Your task to perform on an android device: What is the recent news? Image 0: 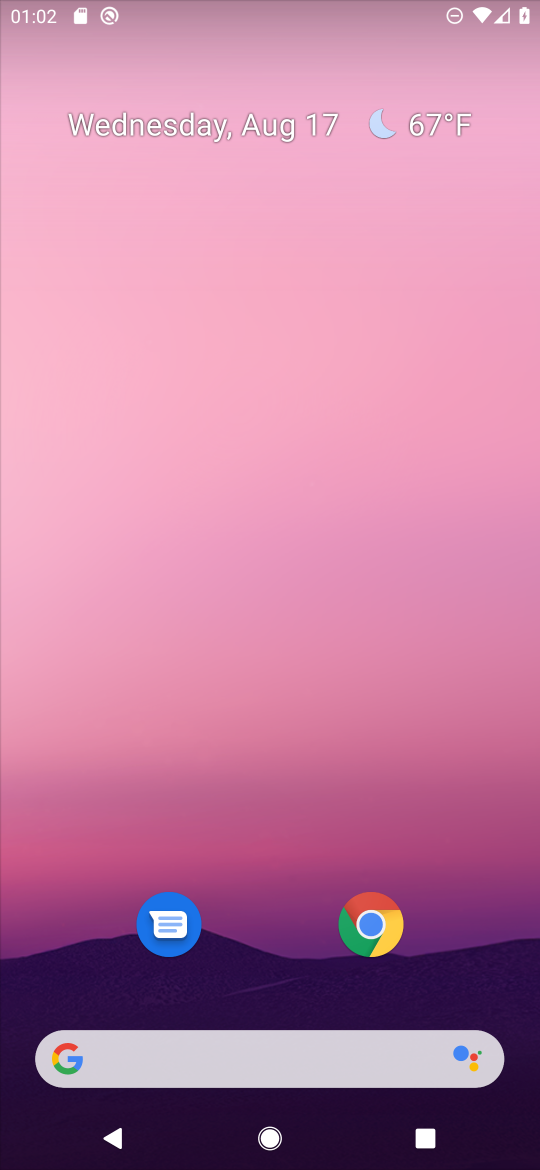
Step 0: press home button
Your task to perform on an android device: What is the recent news? Image 1: 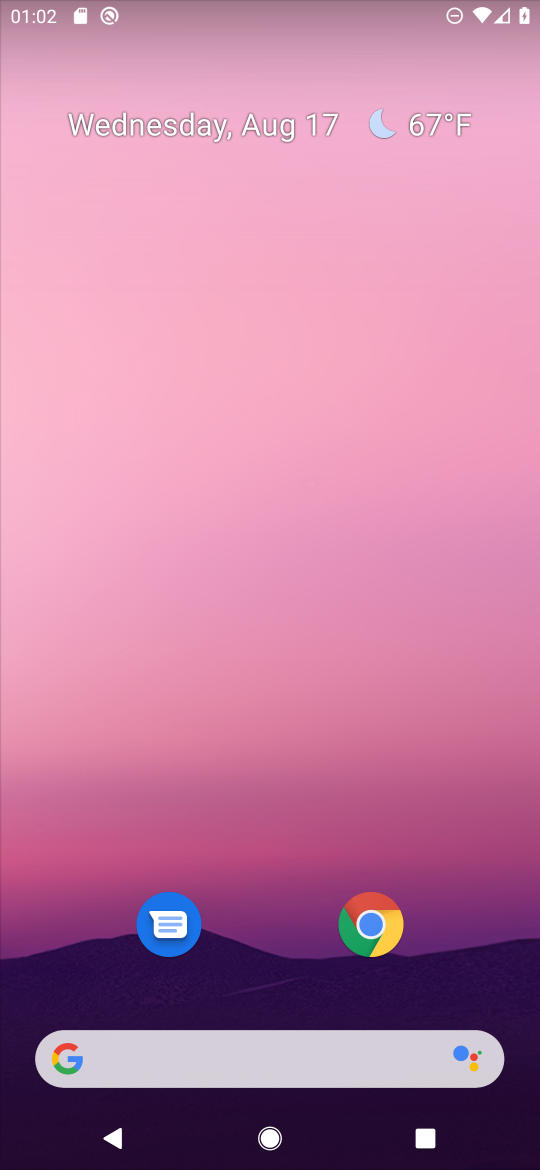
Step 1: click (144, 1064)
Your task to perform on an android device: What is the recent news? Image 2: 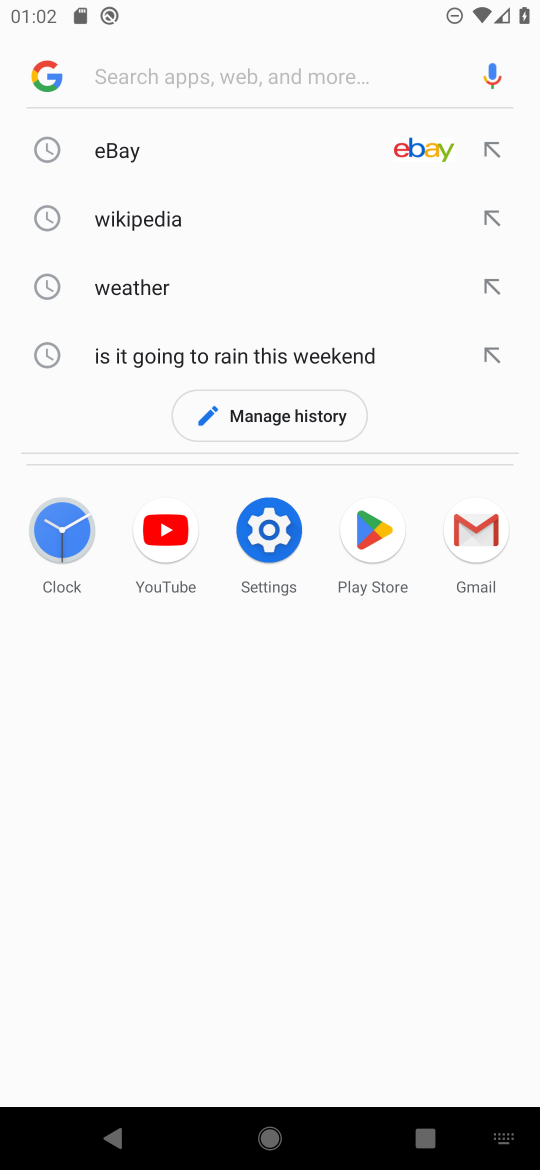
Step 2: click (48, 75)
Your task to perform on an android device: What is the recent news? Image 3: 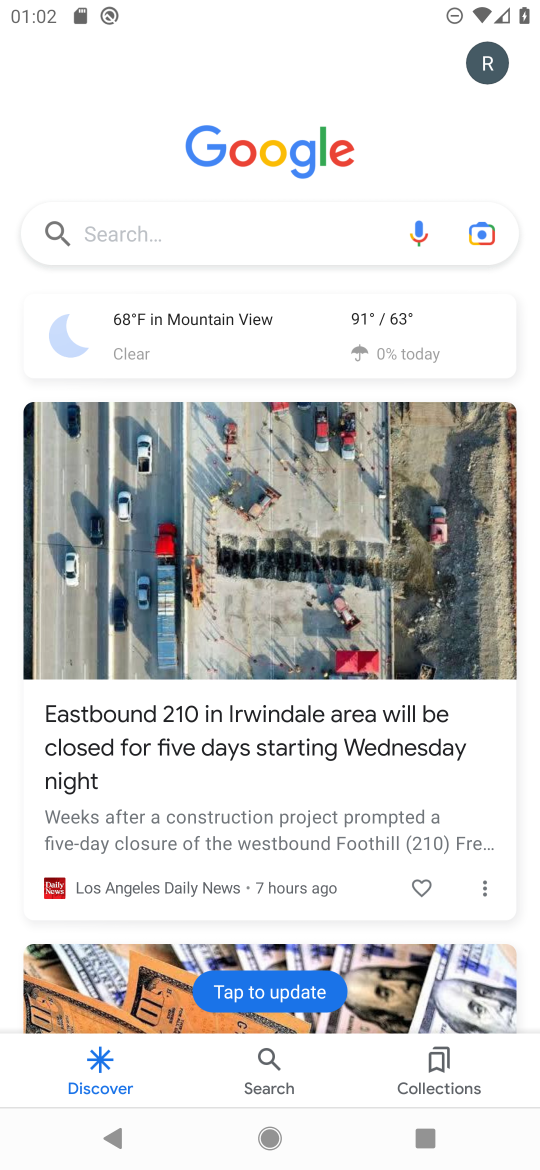
Step 3: task complete